Your task to perform on an android device: check out phone information Image 0: 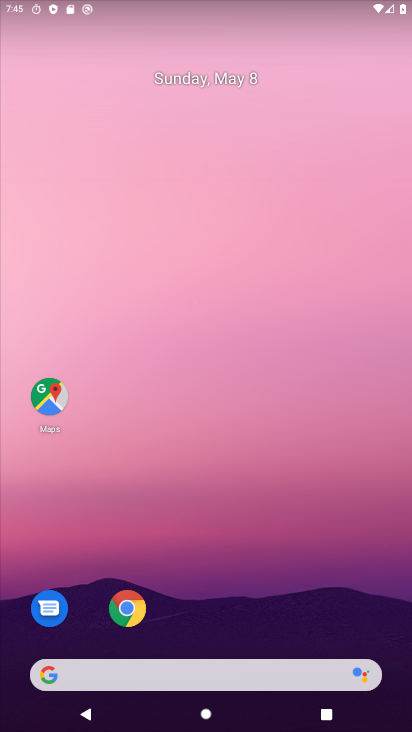
Step 0: drag from (251, 576) to (309, 109)
Your task to perform on an android device: check out phone information Image 1: 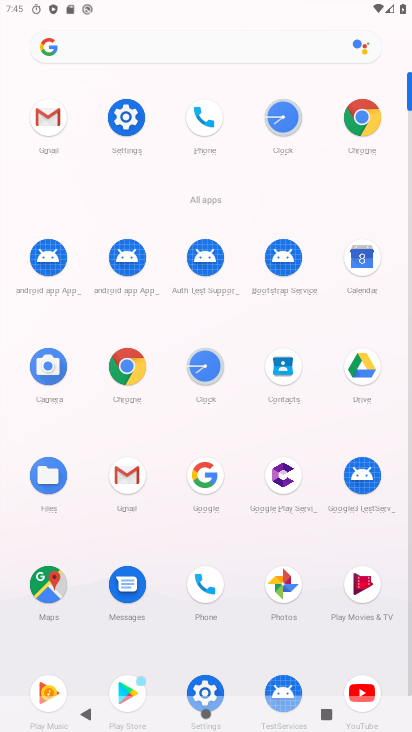
Step 1: click (207, 586)
Your task to perform on an android device: check out phone information Image 2: 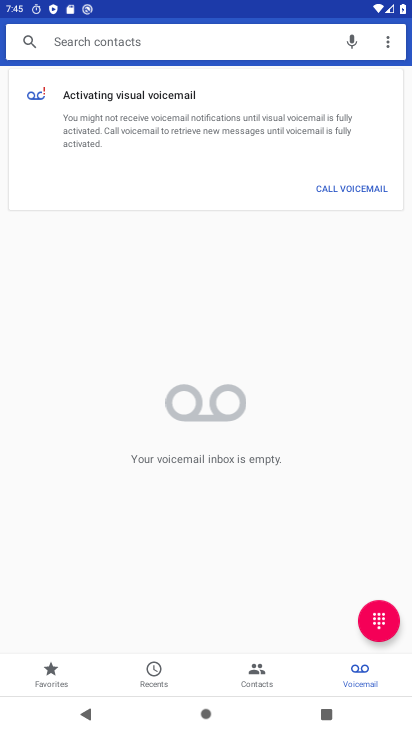
Step 2: click (391, 43)
Your task to perform on an android device: check out phone information Image 3: 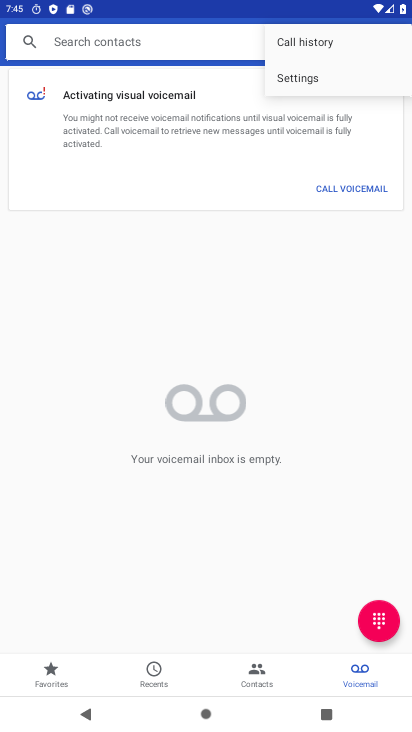
Step 3: click (303, 76)
Your task to perform on an android device: check out phone information Image 4: 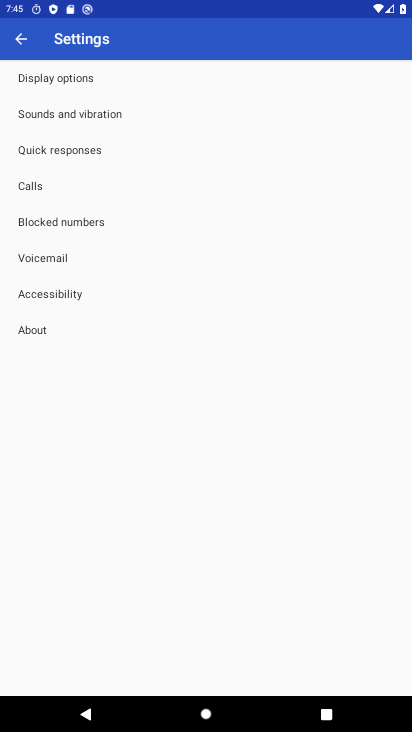
Step 4: click (54, 334)
Your task to perform on an android device: check out phone information Image 5: 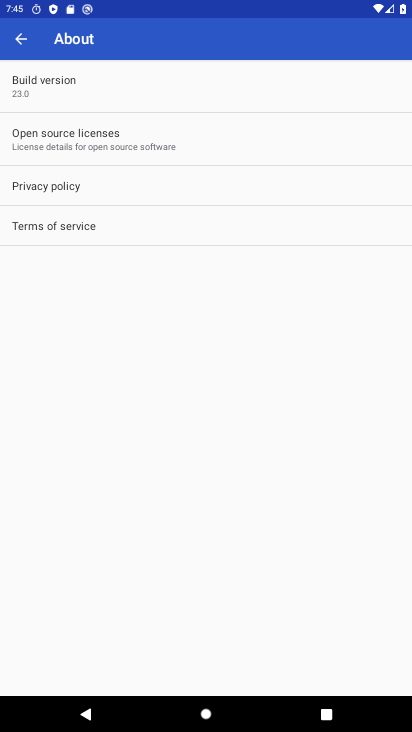
Step 5: task complete